Your task to perform on an android device: How much does the new iPad cost on eBay? Image 0: 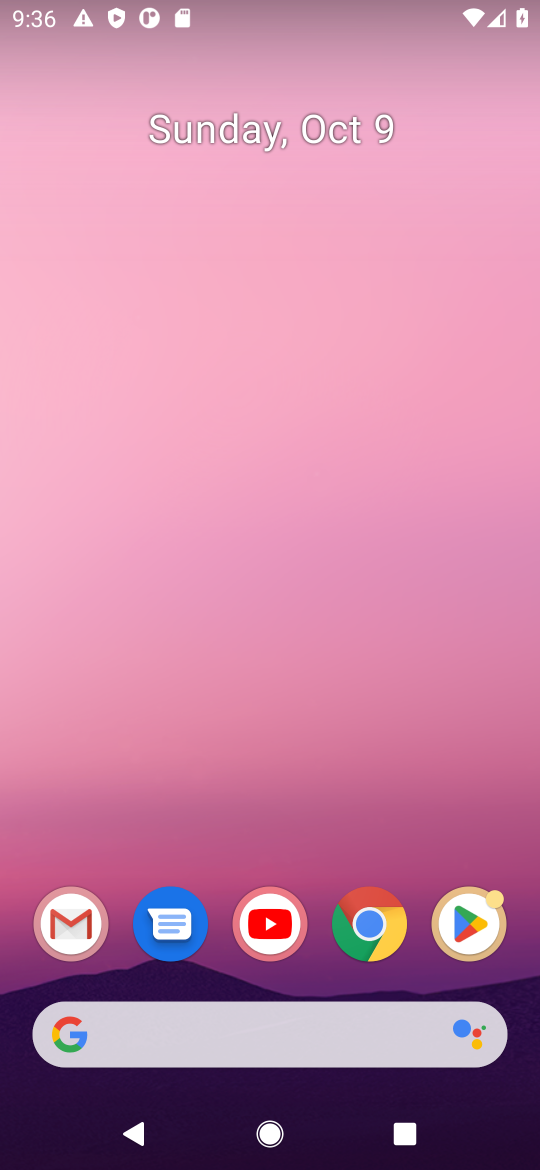
Step 0: click (362, 935)
Your task to perform on an android device: How much does the new iPad cost on eBay? Image 1: 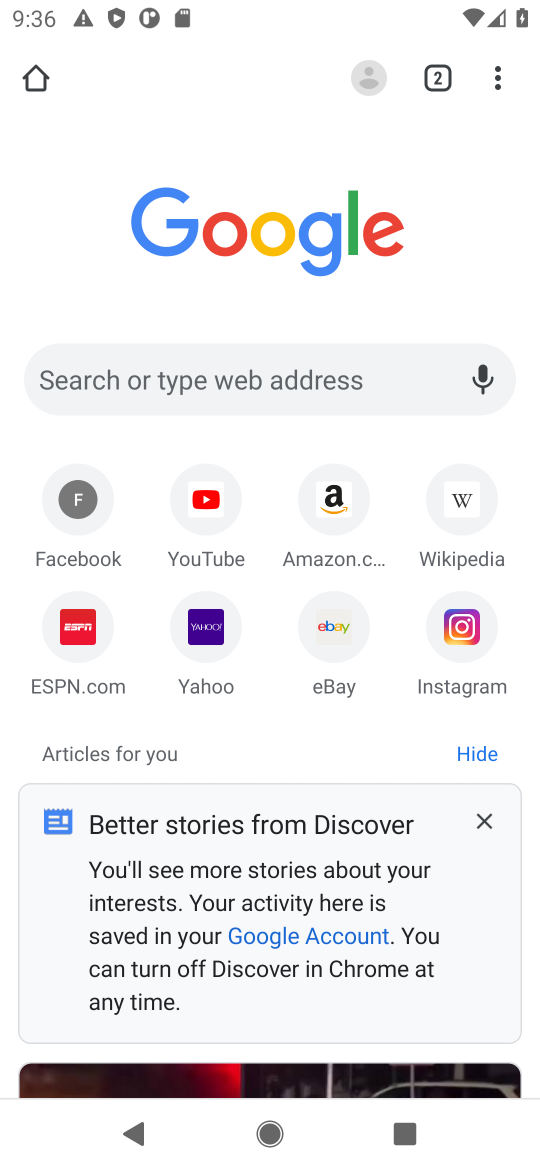
Step 1: click (326, 661)
Your task to perform on an android device: How much does the new iPad cost on eBay? Image 2: 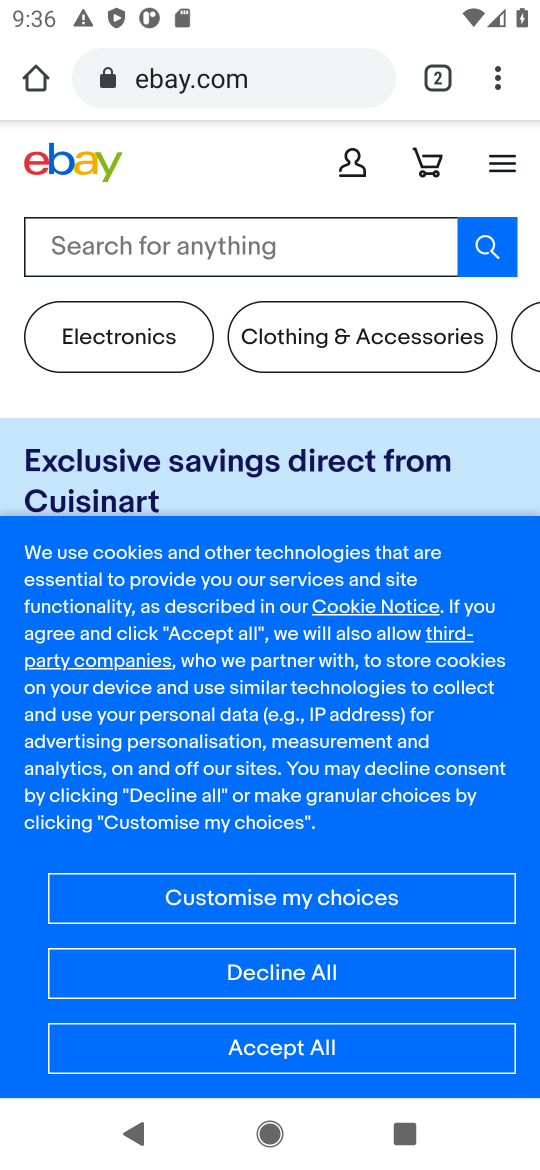
Step 2: click (263, 241)
Your task to perform on an android device: How much does the new iPad cost on eBay? Image 3: 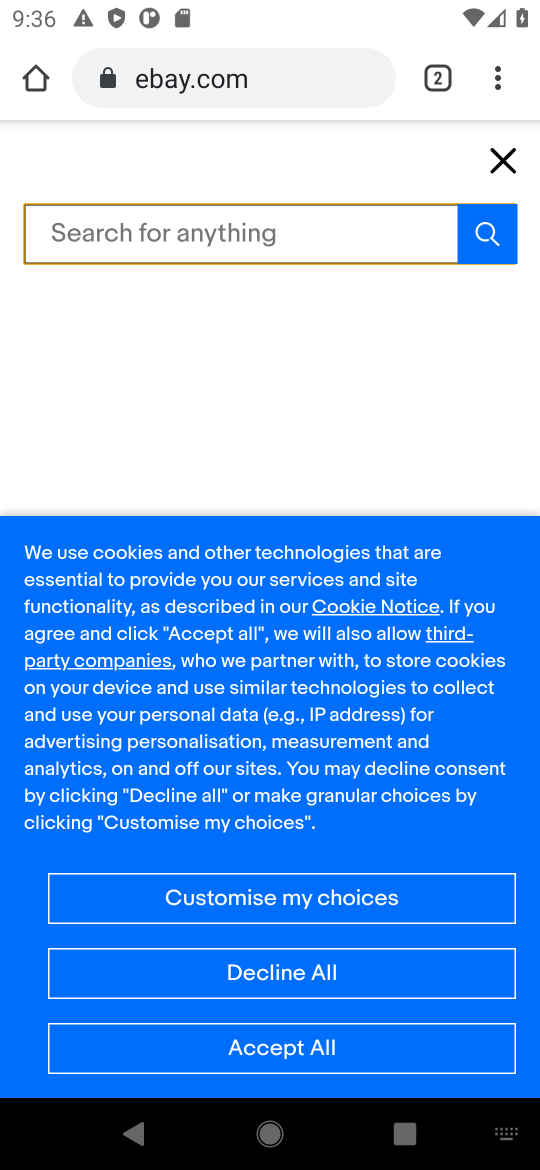
Step 3: type "new ipad"
Your task to perform on an android device: How much does the new iPad cost on eBay? Image 4: 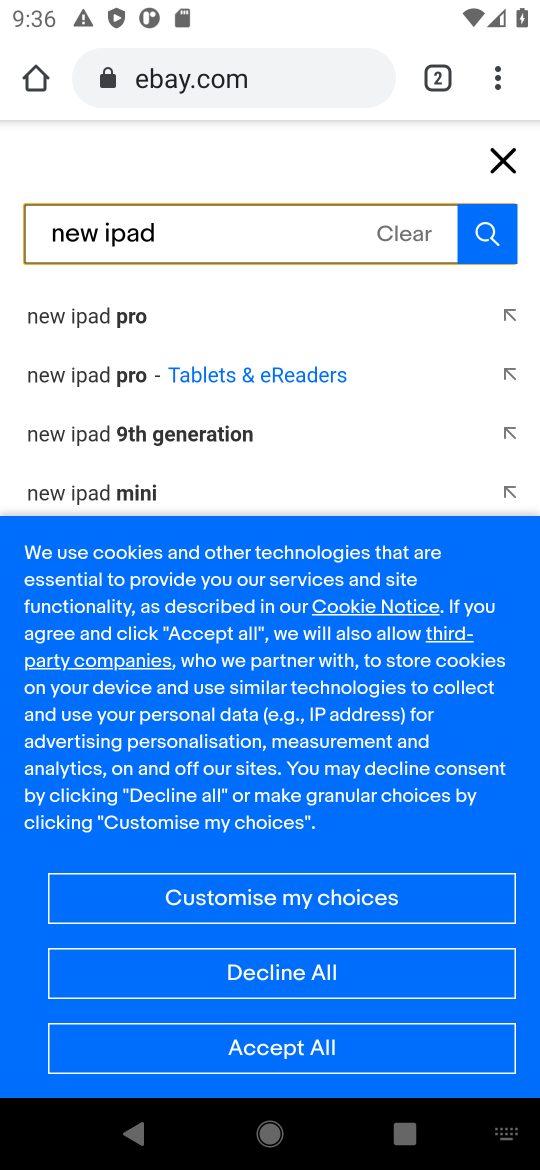
Step 4: press enter
Your task to perform on an android device: How much does the new iPad cost on eBay? Image 5: 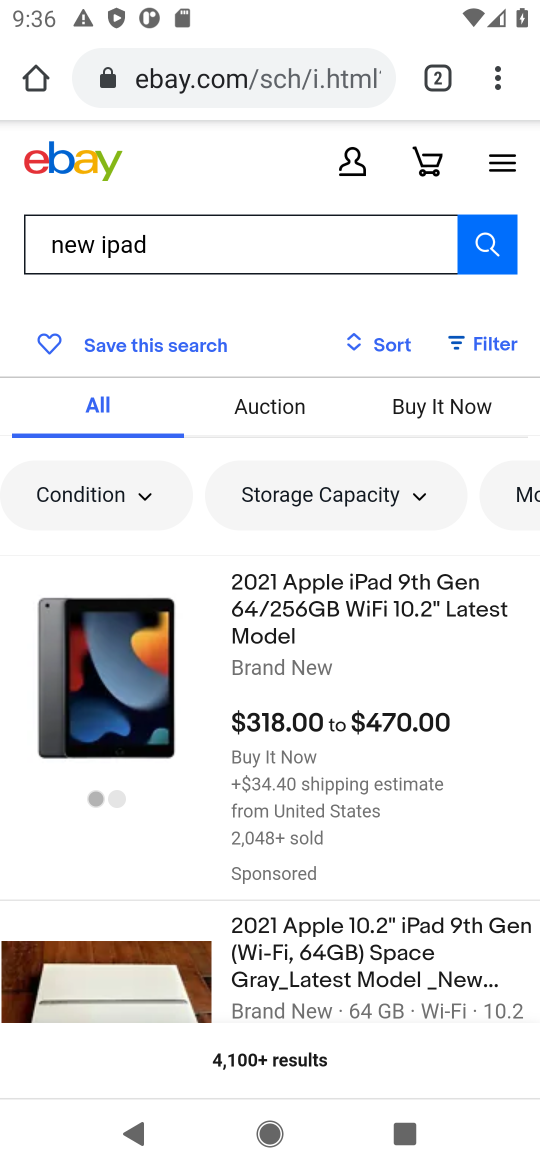
Step 5: task complete